Your task to perform on an android device: Go to Wikipedia Image 0: 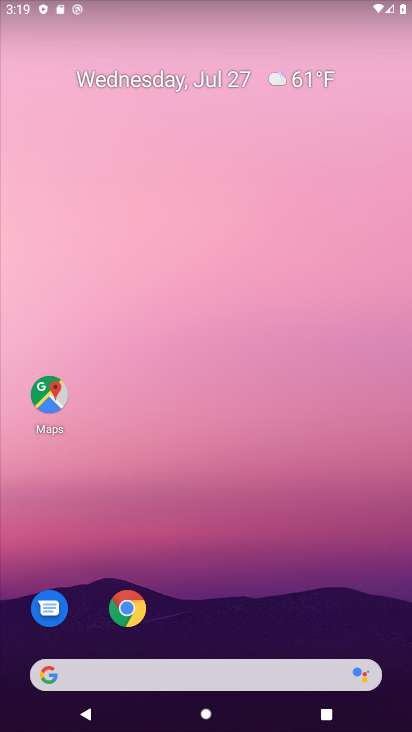
Step 0: click (126, 605)
Your task to perform on an android device: Go to Wikipedia Image 1: 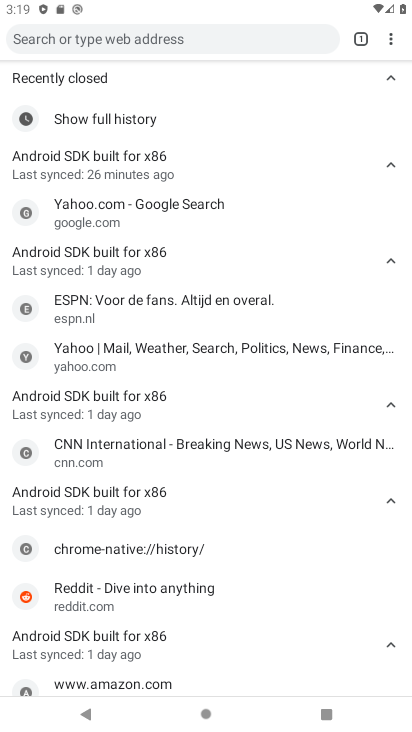
Step 1: click (393, 42)
Your task to perform on an android device: Go to Wikipedia Image 2: 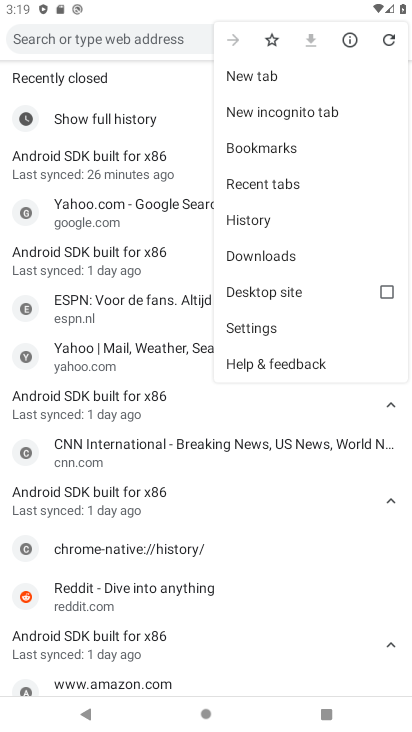
Step 2: click (270, 69)
Your task to perform on an android device: Go to Wikipedia Image 3: 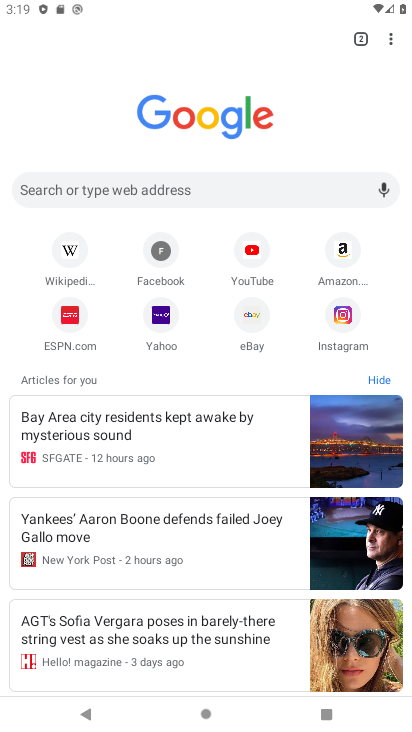
Step 3: click (69, 257)
Your task to perform on an android device: Go to Wikipedia Image 4: 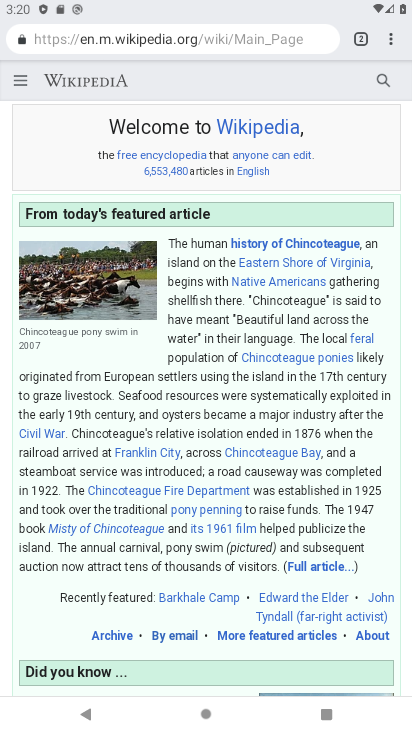
Step 4: task complete